Your task to perform on an android device: see sites visited before in the chrome app Image 0: 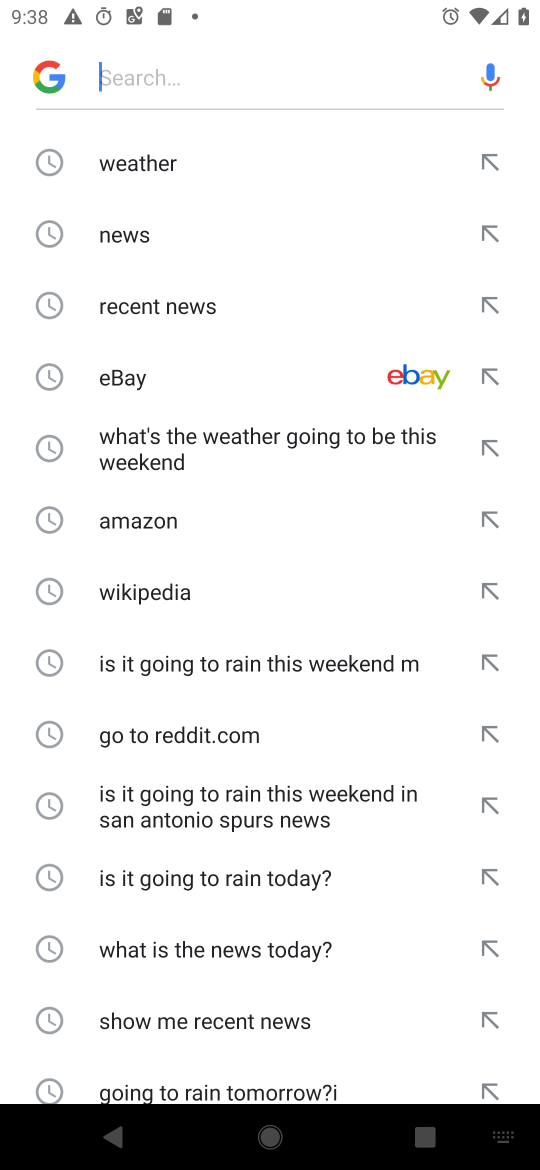
Step 0: press home button
Your task to perform on an android device: see sites visited before in the chrome app Image 1: 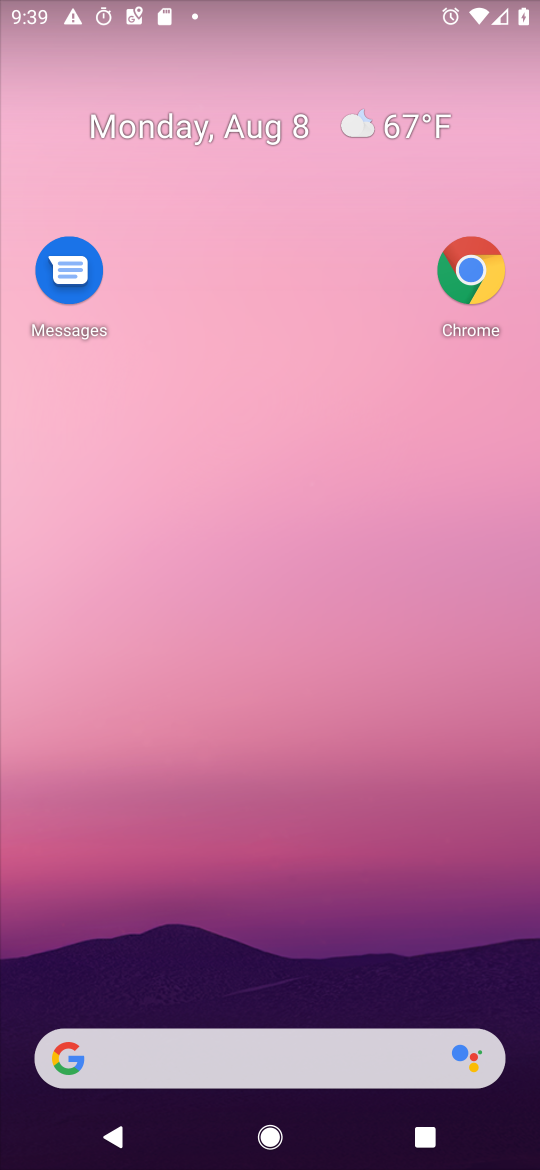
Step 1: click (463, 272)
Your task to perform on an android device: see sites visited before in the chrome app Image 2: 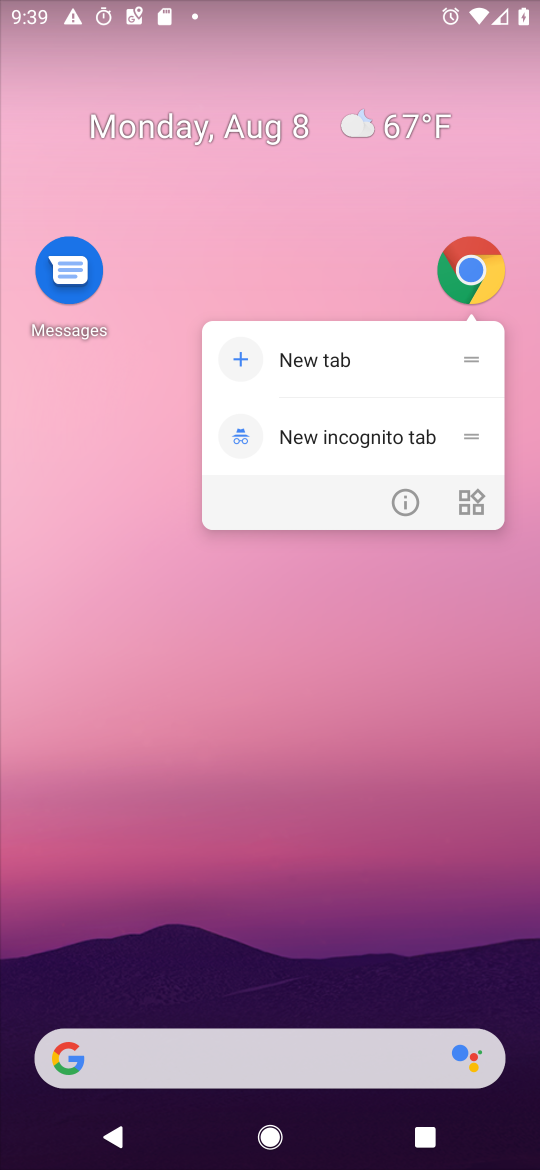
Step 2: click (387, 507)
Your task to perform on an android device: see sites visited before in the chrome app Image 3: 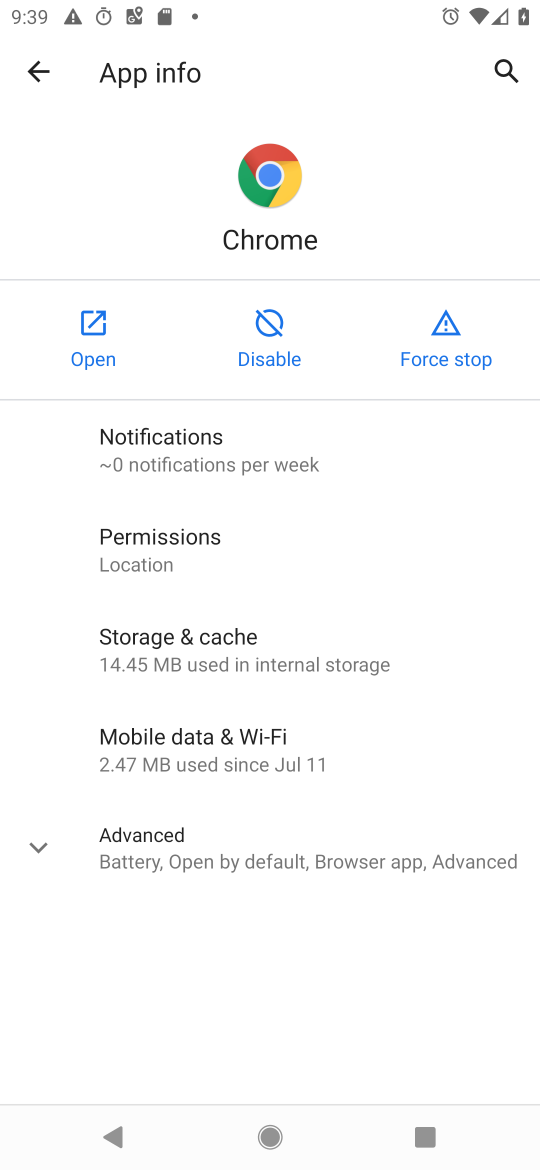
Step 3: click (83, 307)
Your task to perform on an android device: see sites visited before in the chrome app Image 4: 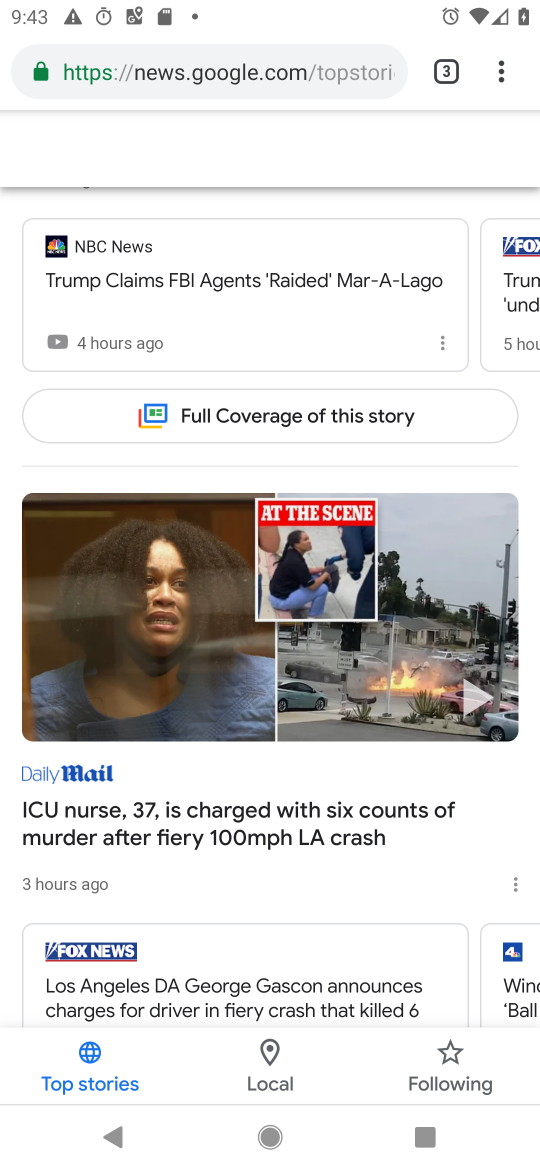
Step 4: task complete